Your task to perform on an android device: Do I have any events today? Image 0: 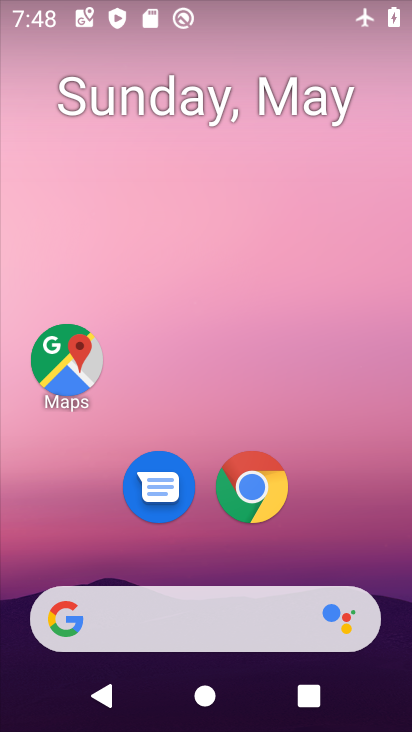
Step 0: drag from (374, 554) to (350, 113)
Your task to perform on an android device: Do I have any events today? Image 1: 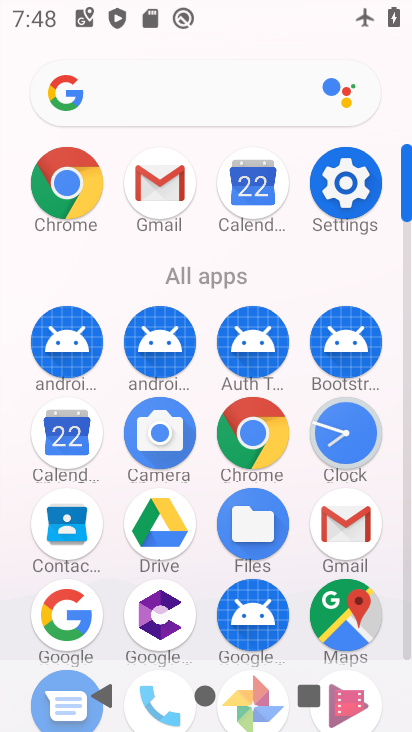
Step 1: click (49, 444)
Your task to perform on an android device: Do I have any events today? Image 2: 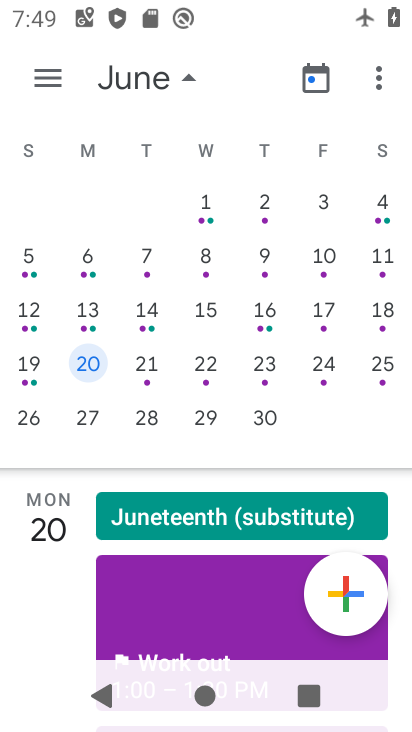
Step 2: drag from (33, 185) to (378, 241)
Your task to perform on an android device: Do I have any events today? Image 3: 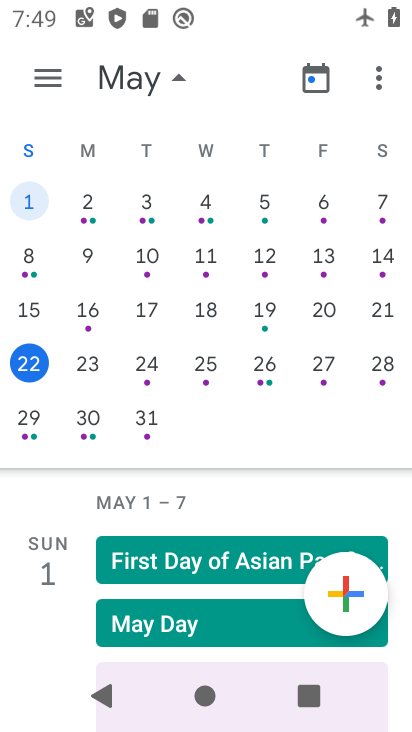
Step 3: click (91, 355)
Your task to perform on an android device: Do I have any events today? Image 4: 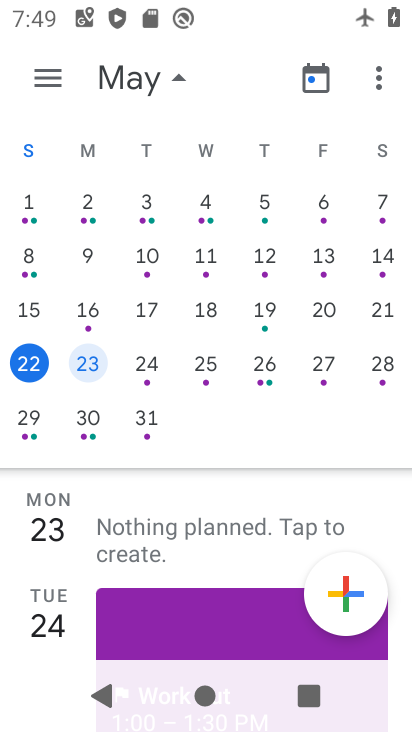
Step 4: task complete